Your task to perform on an android device: Open display settings Image 0: 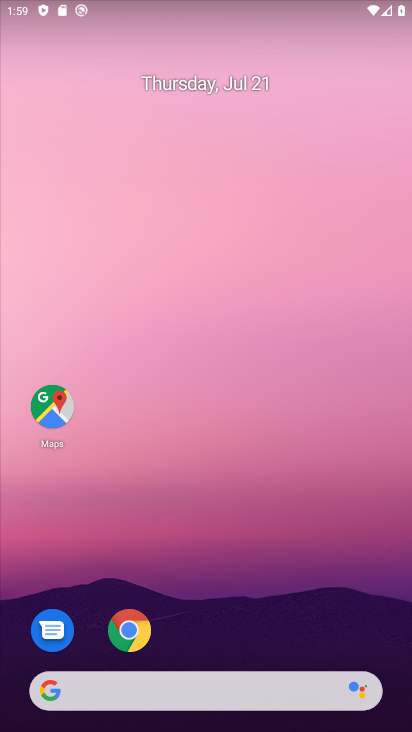
Step 0: click (119, 358)
Your task to perform on an android device: Open display settings Image 1: 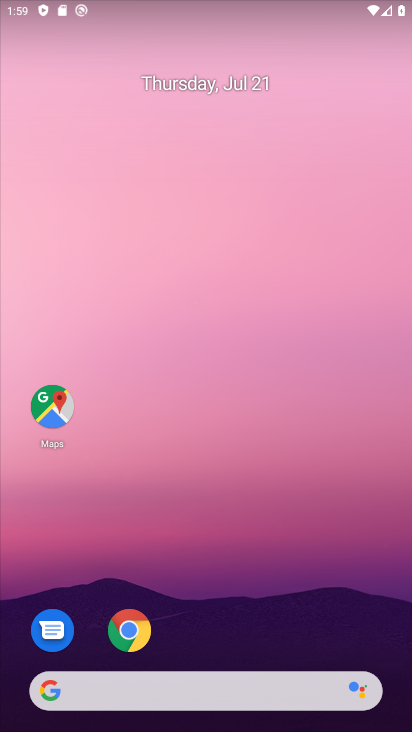
Step 1: drag from (281, 667) to (188, 287)
Your task to perform on an android device: Open display settings Image 2: 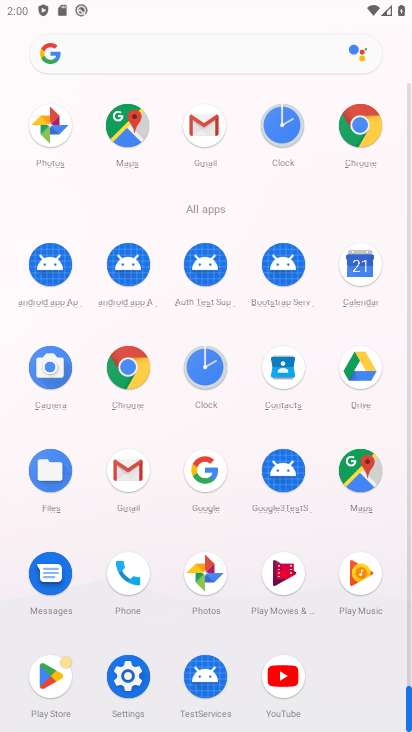
Step 2: click (128, 675)
Your task to perform on an android device: Open display settings Image 3: 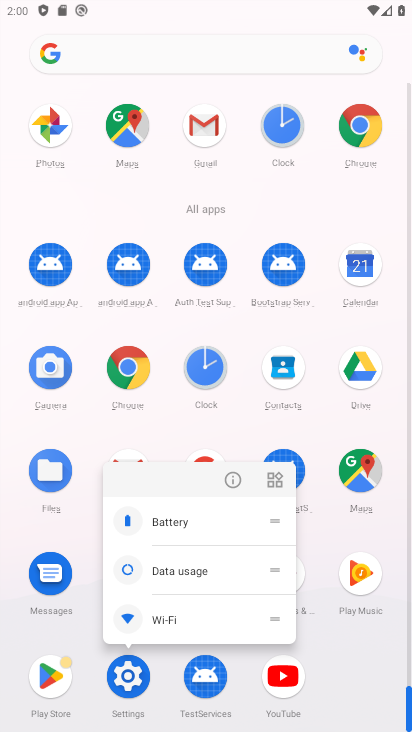
Step 3: click (123, 675)
Your task to perform on an android device: Open display settings Image 4: 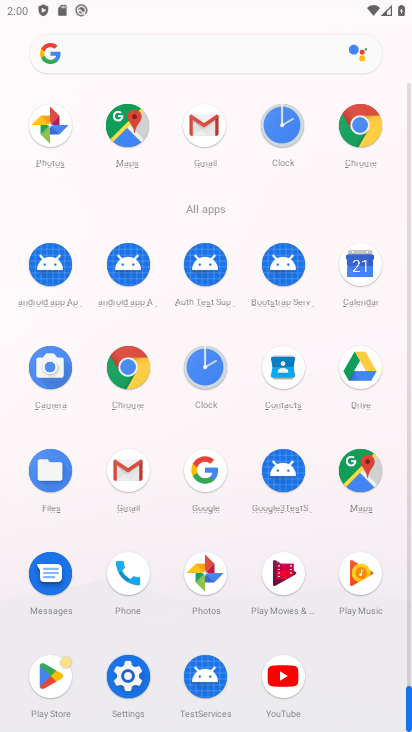
Step 4: click (122, 683)
Your task to perform on an android device: Open display settings Image 5: 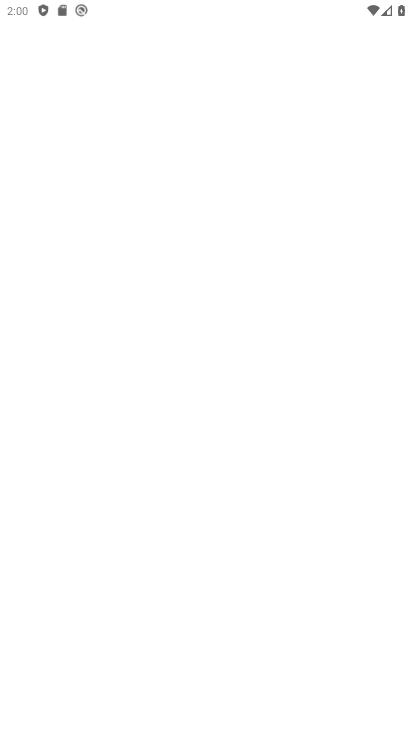
Step 5: click (129, 680)
Your task to perform on an android device: Open display settings Image 6: 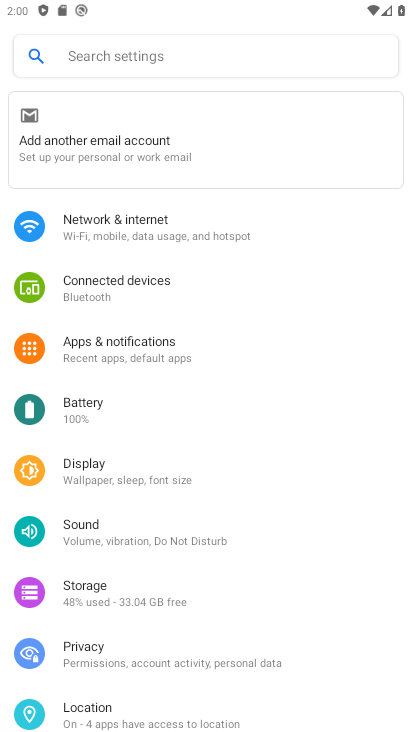
Step 6: click (89, 481)
Your task to perform on an android device: Open display settings Image 7: 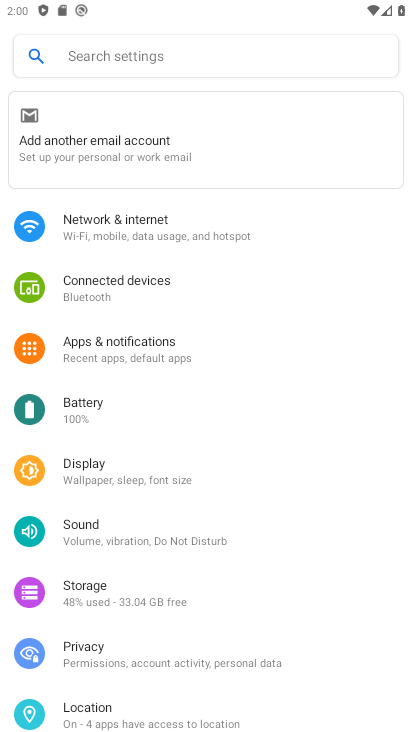
Step 7: click (89, 481)
Your task to perform on an android device: Open display settings Image 8: 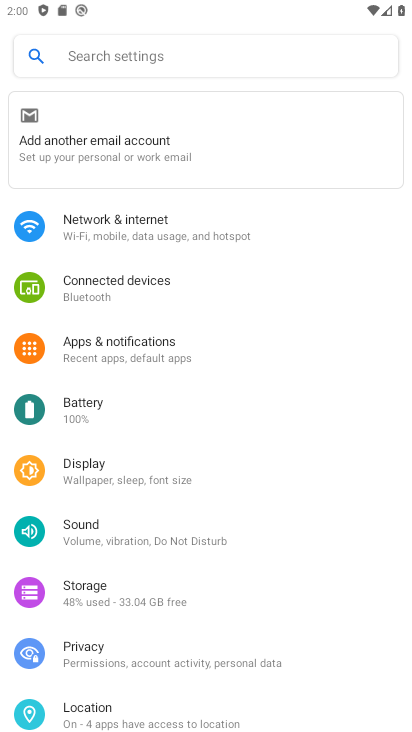
Step 8: click (84, 485)
Your task to perform on an android device: Open display settings Image 9: 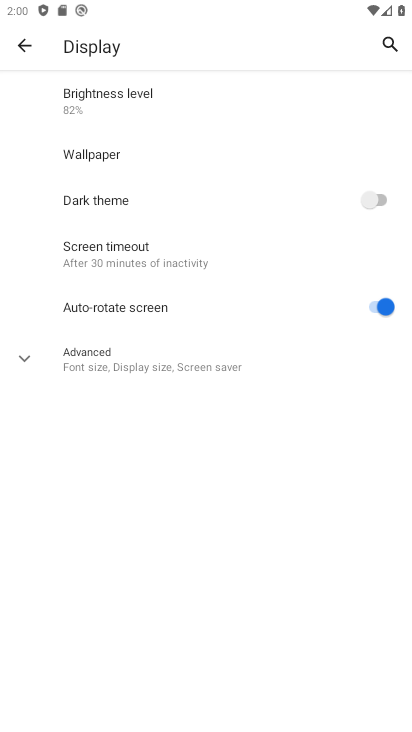
Step 9: task complete